Your task to perform on an android device: turn off improve location accuracy Image 0: 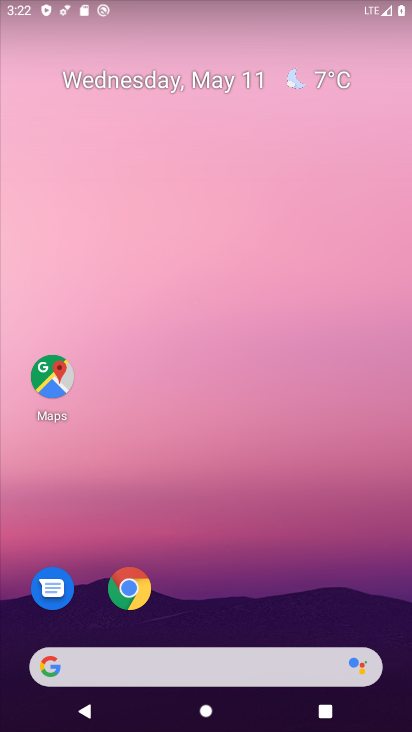
Step 0: drag from (223, 716) to (198, 99)
Your task to perform on an android device: turn off improve location accuracy Image 1: 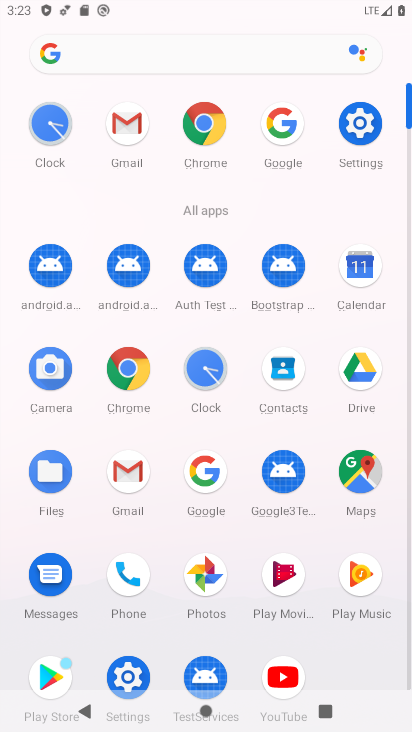
Step 1: click (363, 121)
Your task to perform on an android device: turn off improve location accuracy Image 2: 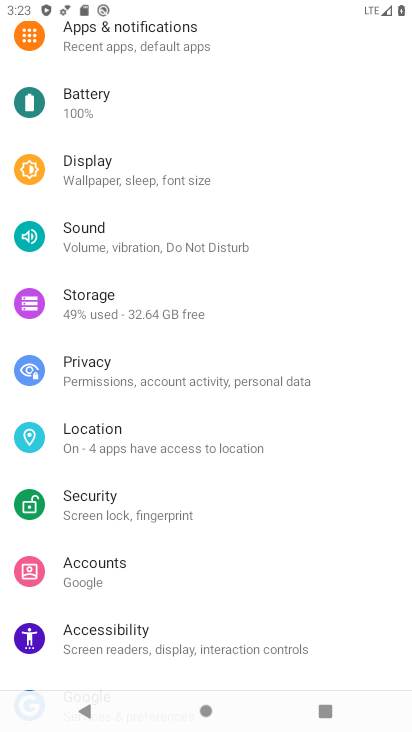
Step 2: click (104, 436)
Your task to perform on an android device: turn off improve location accuracy Image 3: 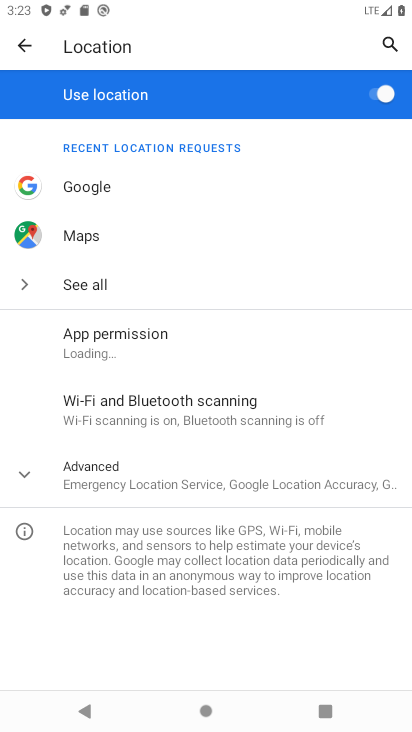
Step 3: click (108, 480)
Your task to perform on an android device: turn off improve location accuracy Image 4: 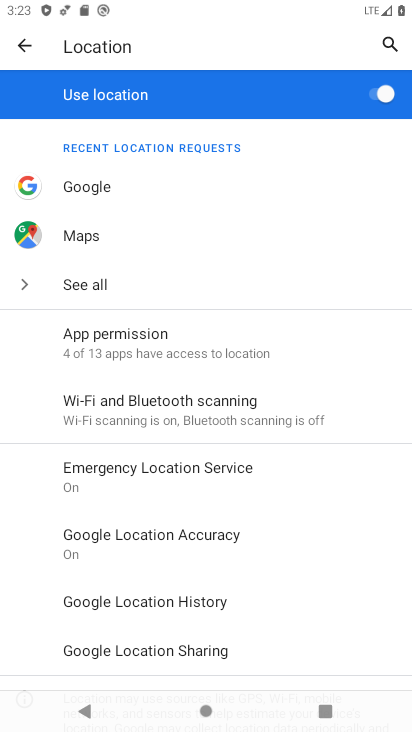
Step 4: click (204, 533)
Your task to perform on an android device: turn off improve location accuracy Image 5: 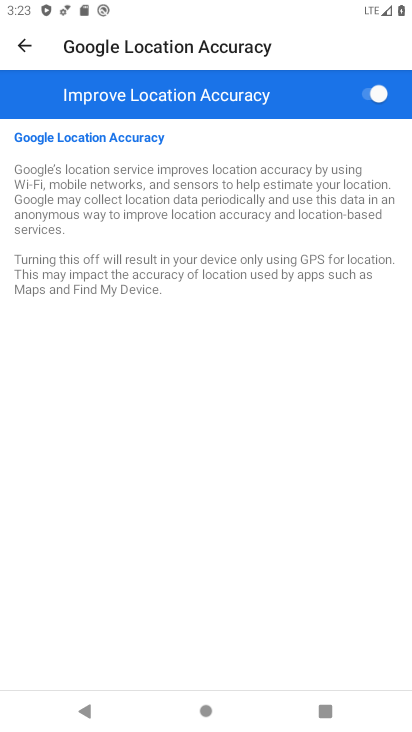
Step 5: click (368, 94)
Your task to perform on an android device: turn off improve location accuracy Image 6: 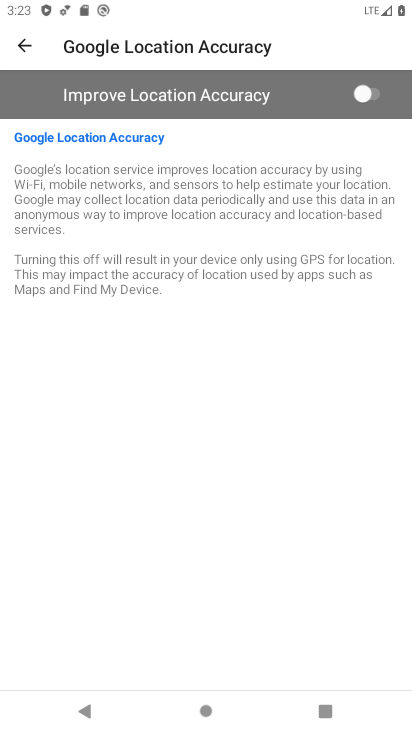
Step 6: task complete